Your task to perform on an android device: turn off notifications settings in the gmail app Image 0: 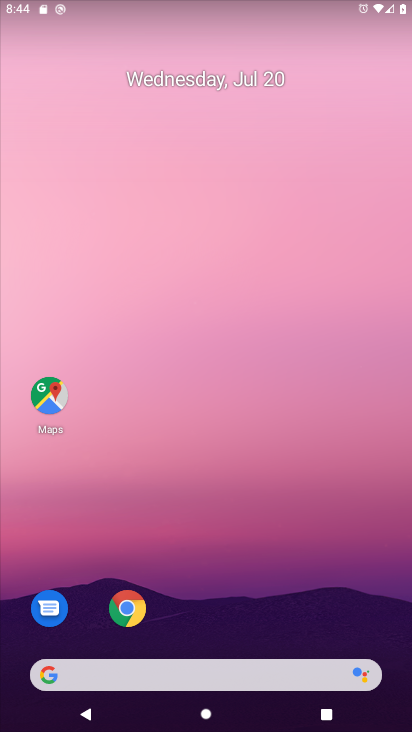
Step 0: drag from (267, 669) to (284, 241)
Your task to perform on an android device: turn off notifications settings in the gmail app Image 1: 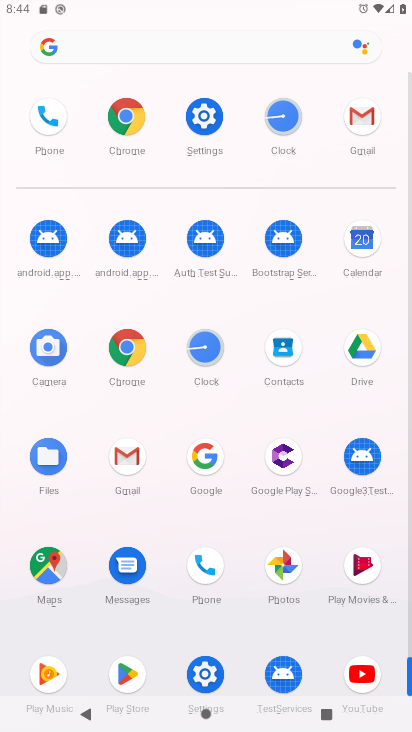
Step 1: click (363, 114)
Your task to perform on an android device: turn off notifications settings in the gmail app Image 2: 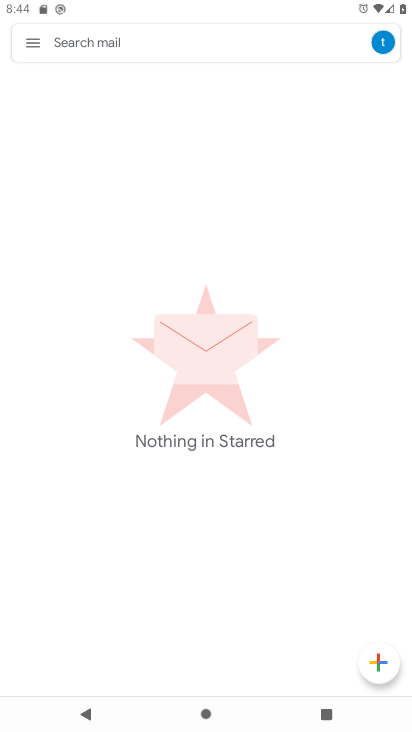
Step 2: click (37, 43)
Your task to perform on an android device: turn off notifications settings in the gmail app Image 3: 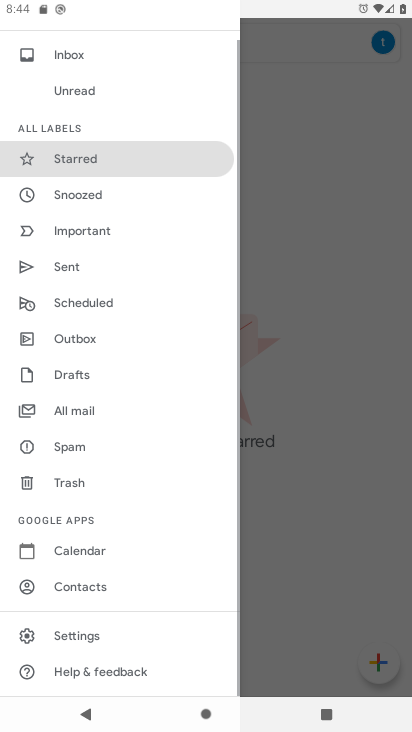
Step 3: click (88, 640)
Your task to perform on an android device: turn off notifications settings in the gmail app Image 4: 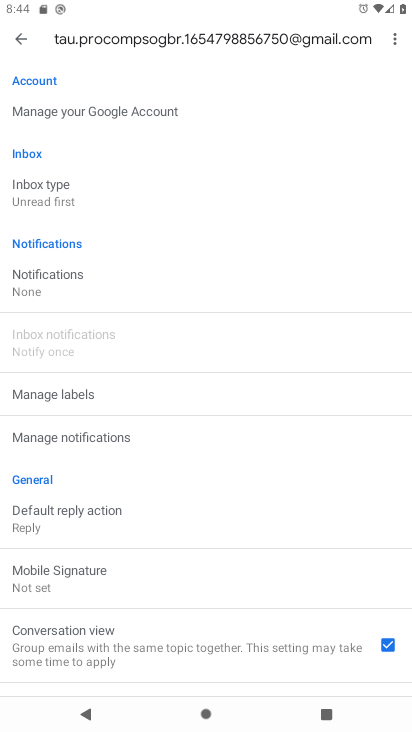
Step 4: click (89, 282)
Your task to perform on an android device: turn off notifications settings in the gmail app Image 5: 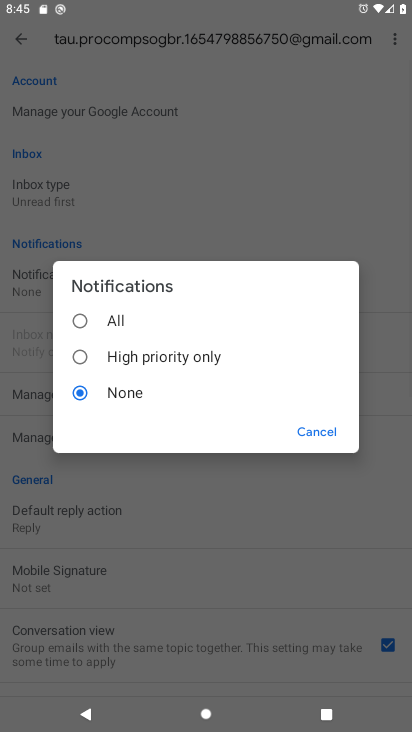
Step 5: click (105, 327)
Your task to perform on an android device: turn off notifications settings in the gmail app Image 6: 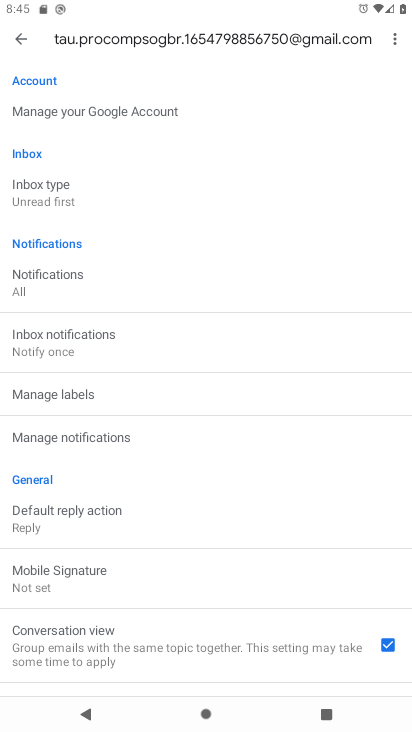
Step 6: click (73, 277)
Your task to perform on an android device: turn off notifications settings in the gmail app Image 7: 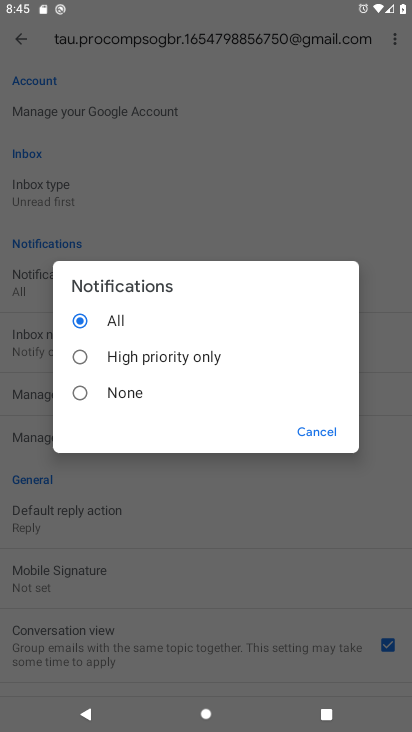
Step 7: click (103, 393)
Your task to perform on an android device: turn off notifications settings in the gmail app Image 8: 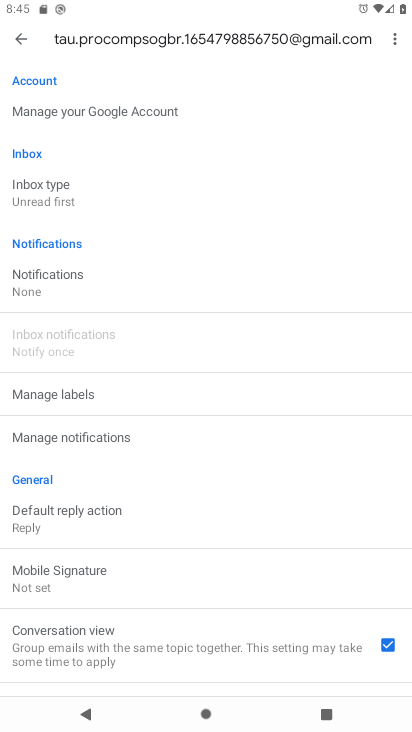
Step 8: task complete